Your task to perform on an android device: change text size in settings app Image 0: 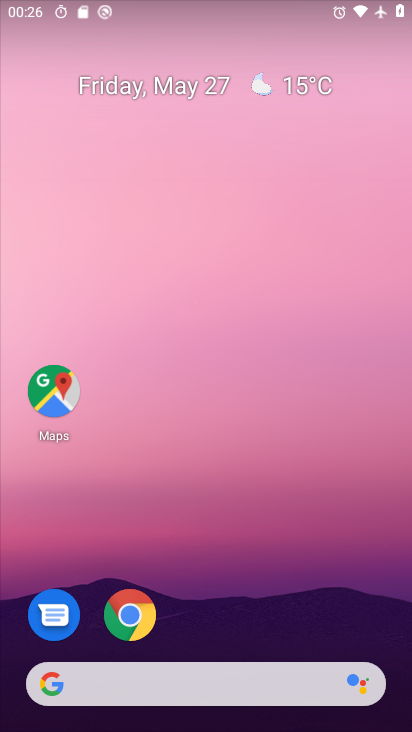
Step 0: drag from (278, 690) to (150, 24)
Your task to perform on an android device: change text size in settings app Image 1: 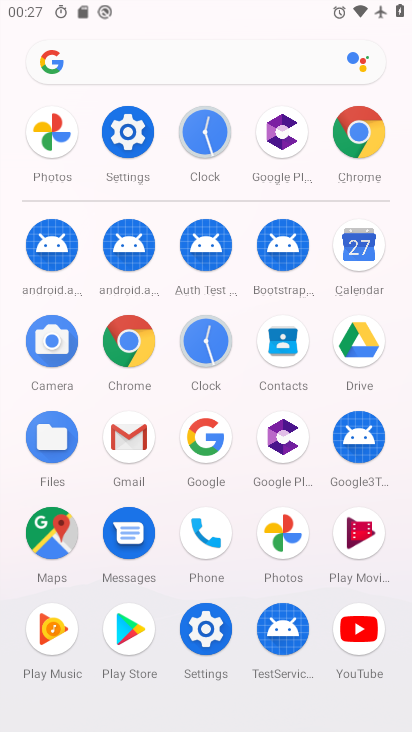
Step 1: click (128, 123)
Your task to perform on an android device: change text size in settings app Image 2: 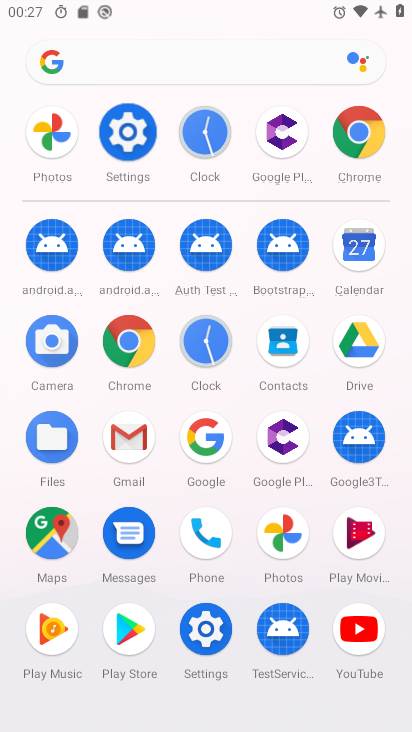
Step 2: click (131, 127)
Your task to perform on an android device: change text size in settings app Image 3: 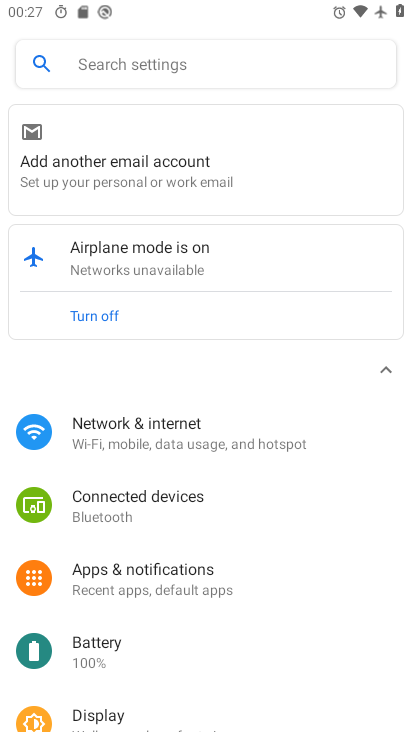
Step 3: click (132, 128)
Your task to perform on an android device: change text size in settings app Image 4: 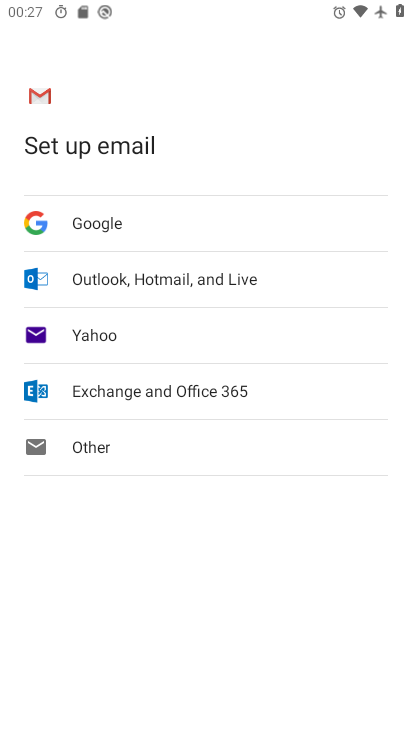
Step 4: press back button
Your task to perform on an android device: change text size in settings app Image 5: 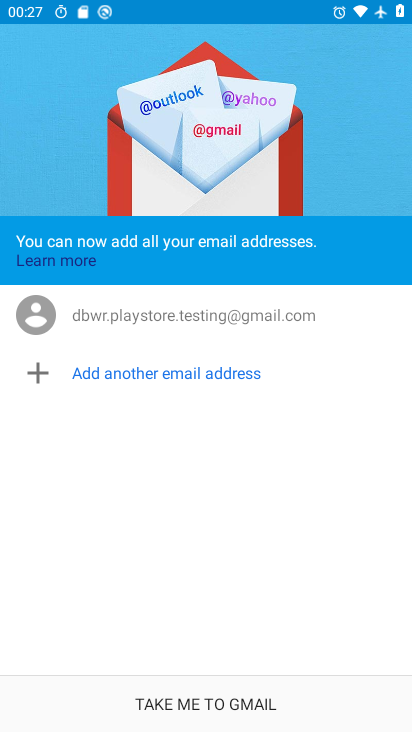
Step 5: press home button
Your task to perform on an android device: change text size in settings app Image 6: 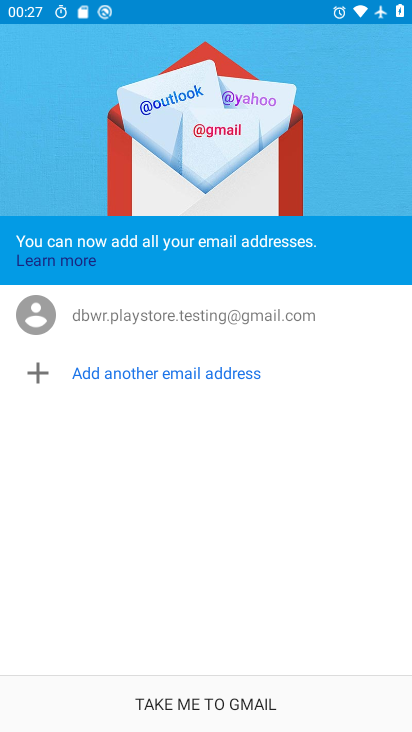
Step 6: press home button
Your task to perform on an android device: change text size in settings app Image 7: 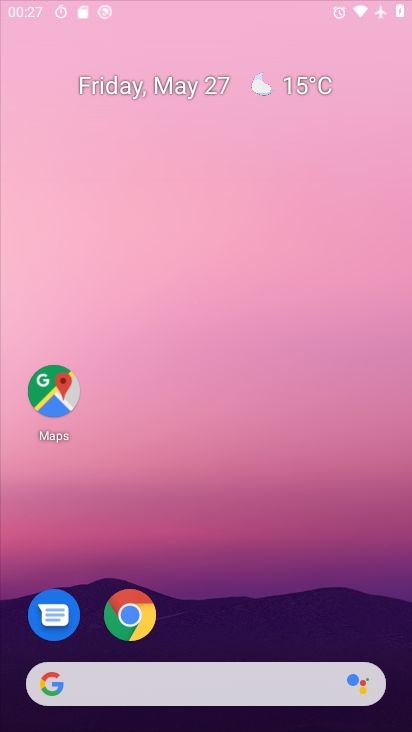
Step 7: press home button
Your task to perform on an android device: change text size in settings app Image 8: 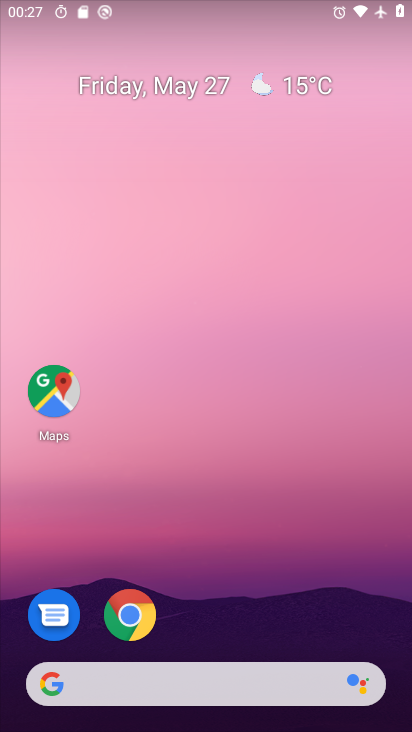
Step 8: drag from (254, 689) to (151, 129)
Your task to perform on an android device: change text size in settings app Image 9: 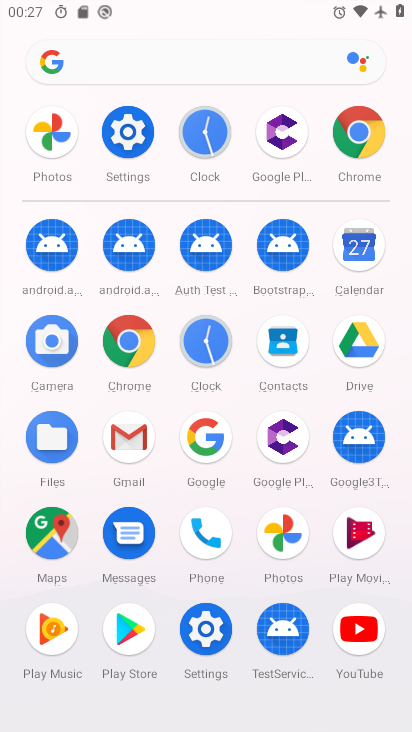
Step 9: click (196, 635)
Your task to perform on an android device: change text size in settings app Image 10: 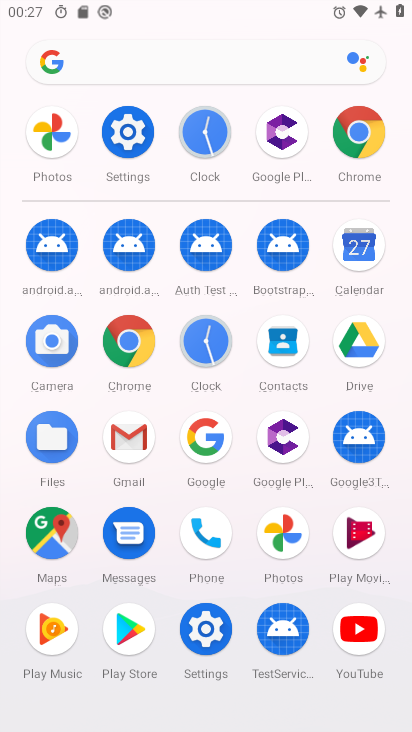
Step 10: click (199, 635)
Your task to perform on an android device: change text size in settings app Image 11: 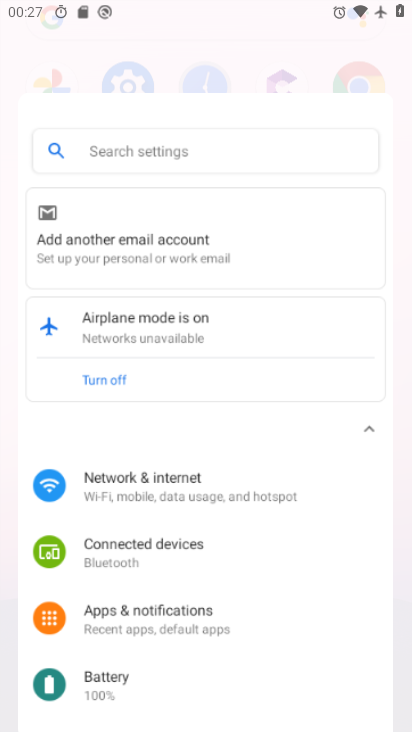
Step 11: click (205, 639)
Your task to perform on an android device: change text size in settings app Image 12: 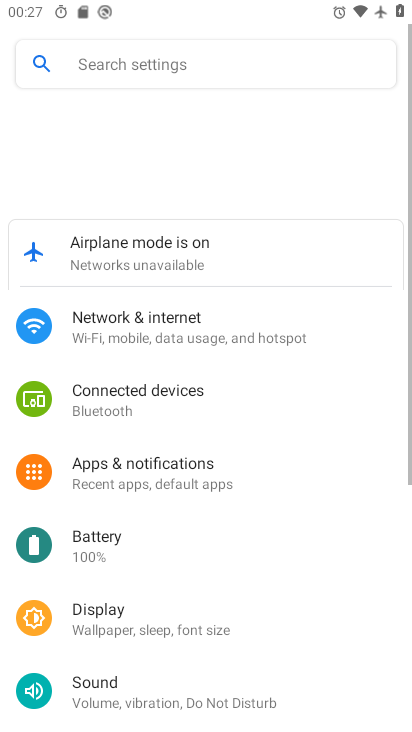
Step 12: click (205, 639)
Your task to perform on an android device: change text size in settings app Image 13: 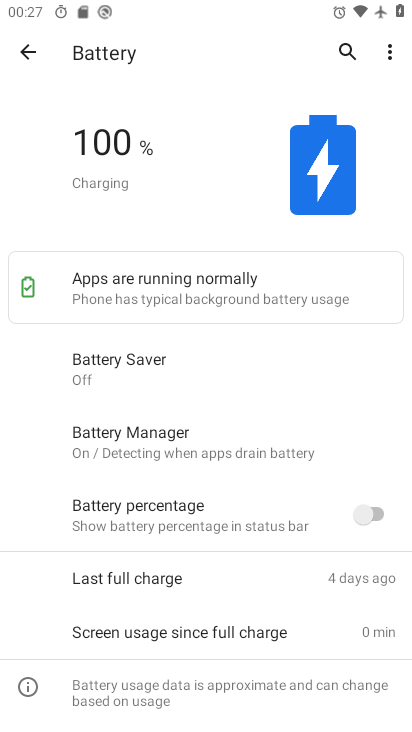
Step 13: click (205, 639)
Your task to perform on an android device: change text size in settings app Image 14: 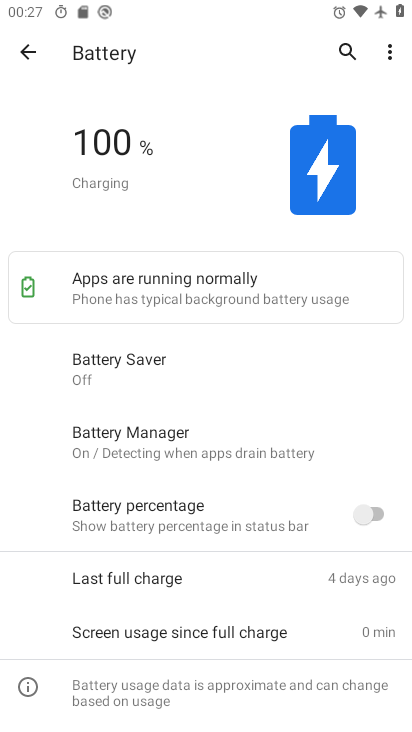
Step 14: drag from (113, 364) to (90, 265)
Your task to perform on an android device: change text size in settings app Image 15: 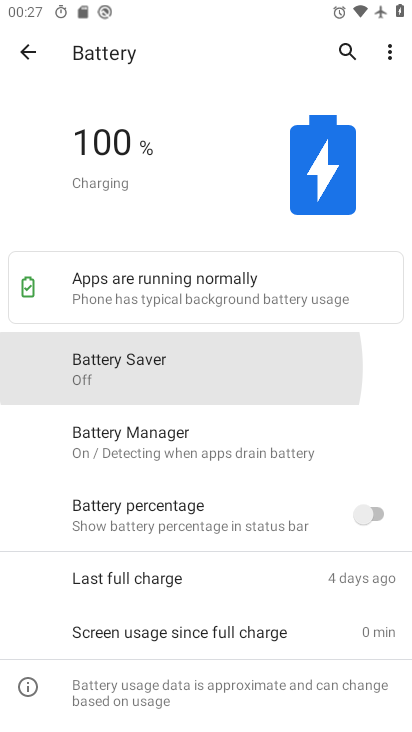
Step 15: drag from (154, 442) to (149, 226)
Your task to perform on an android device: change text size in settings app Image 16: 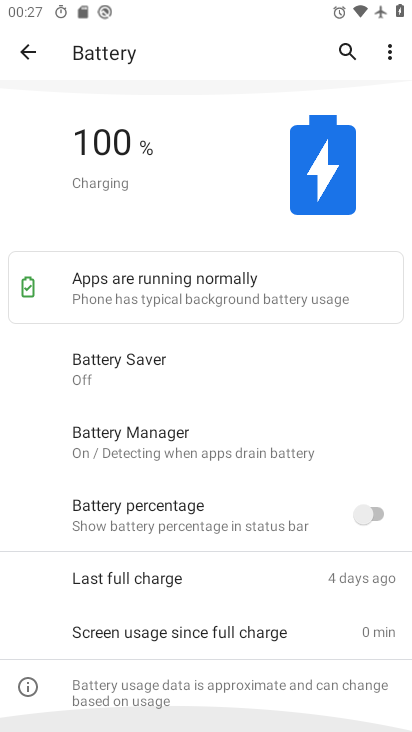
Step 16: drag from (150, 422) to (150, 171)
Your task to perform on an android device: change text size in settings app Image 17: 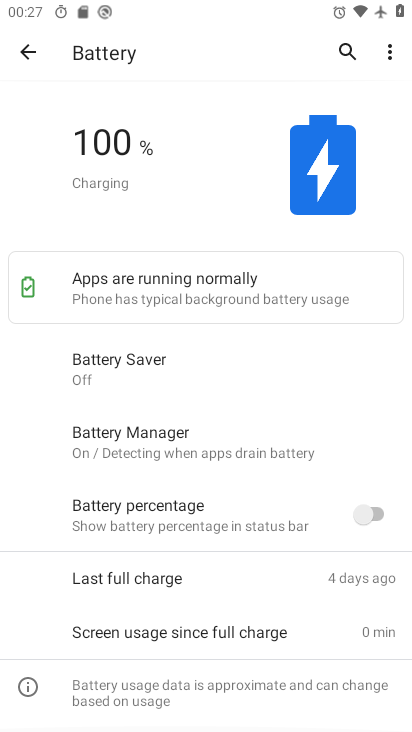
Step 17: drag from (173, 249) to (179, 174)
Your task to perform on an android device: change text size in settings app Image 18: 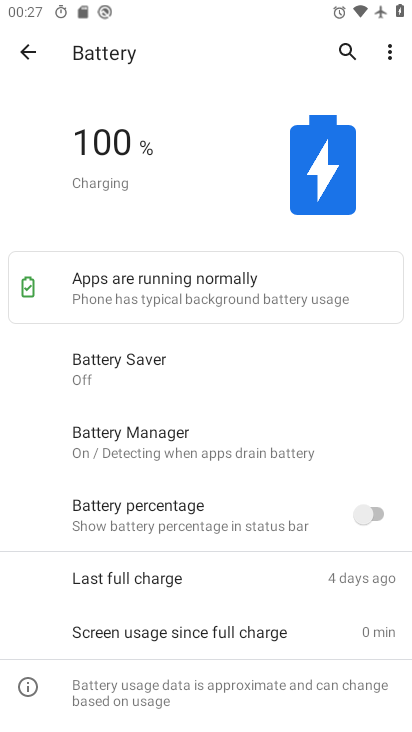
Step 18: drag from (190, 420) to (250, 63)
Your task to perform on an android device: change text size in settings app Image 19: 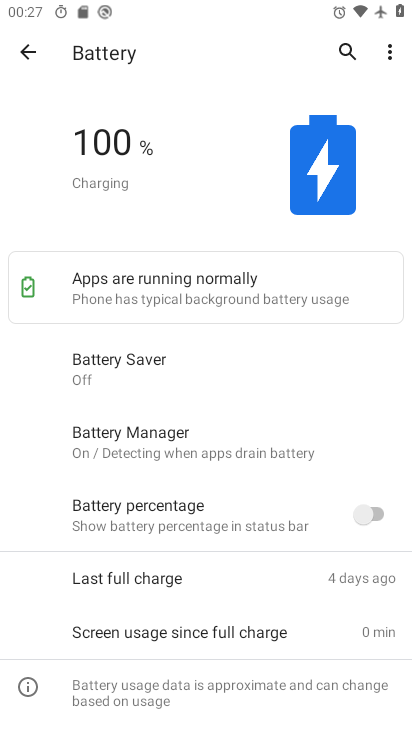
Step 19: click (219, 50)
Your task to perform on an android device: change text size in settings app Image 20: 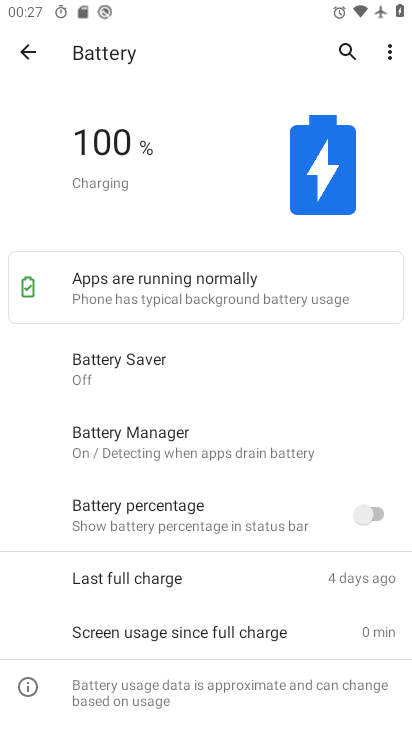
Step 20: drag from (92, 147) to (109, 206)
Your task to perform on an android device: change text size in settings app Image 21: 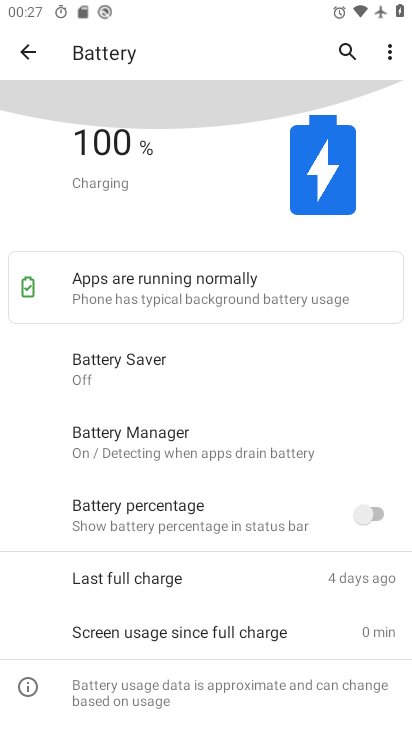
Step 21: click (137, 208)
Your task to perform on an android device: change text size in settings app Image 22: 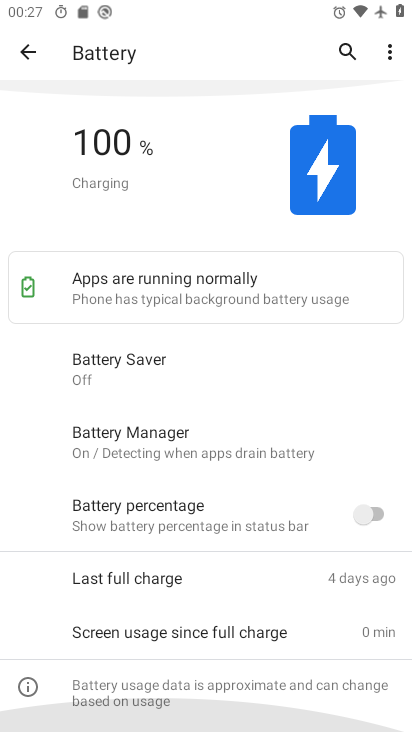
Step 22: drag from (192, 386) to (192, 223)
Your task to perform on an android device: change text size in settings app Image 23: 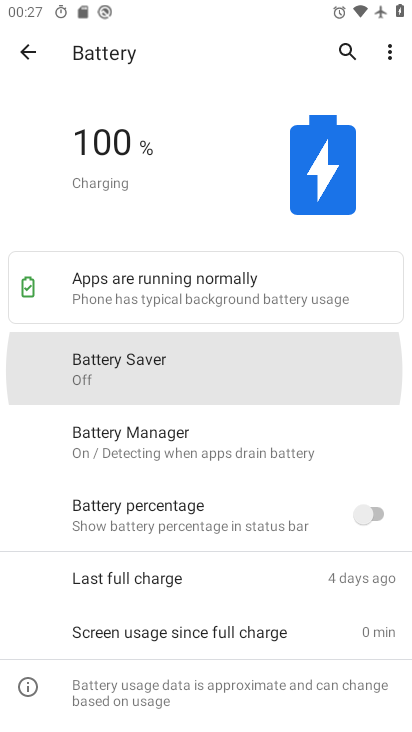
Step 23: drag from (185, 455) to (185, 225)
Your task to perform on an android device: change text size in settings app Image 24: 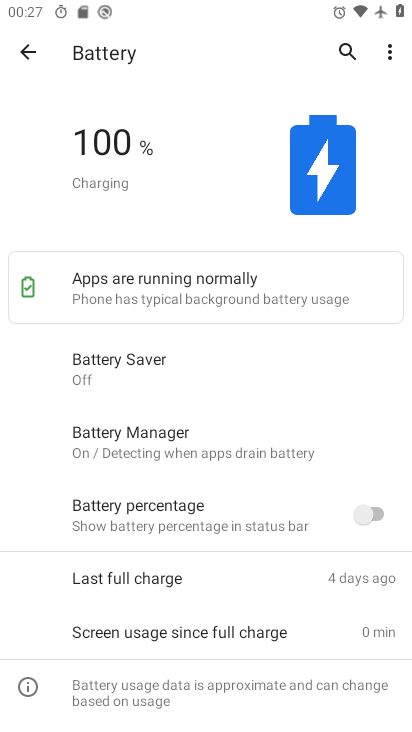
Step 24: click (189, 222)
Your task to perform on an android device: change text size in settings app Image 25: 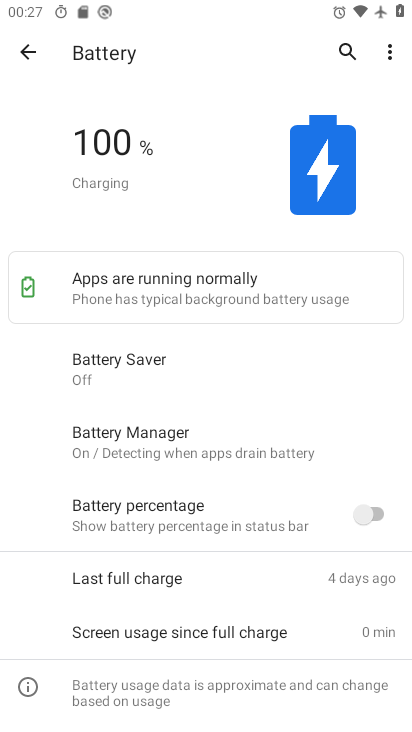
Step 25: drag from (181, 428) to (148, 202)
Your task to perform on an android device: change text size in settings app Image 26: 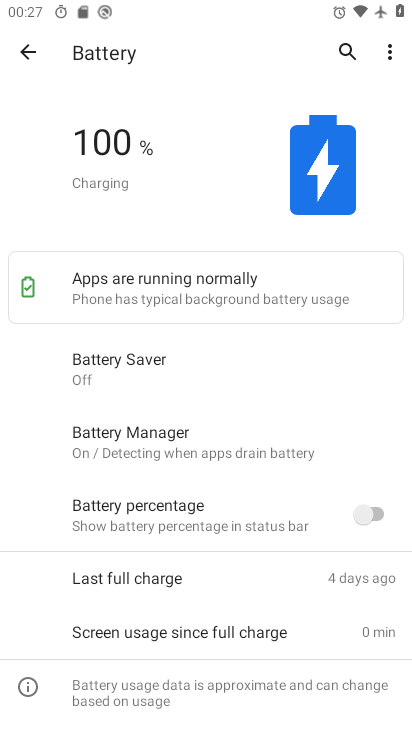
Step 26: drag from (193, 550) to (187, 178)
Your task to perform on an android device: change text size in settings app Image 27: 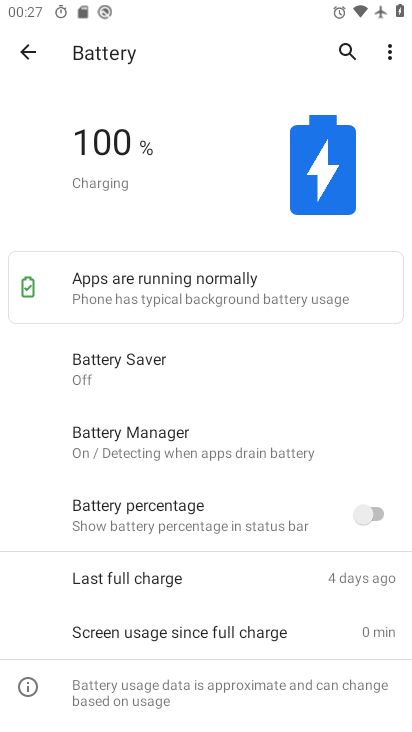
Step 27: drag from (186, 502) to (136, 232)
Your task to perform on an android device: change text size in settings app Image 28: 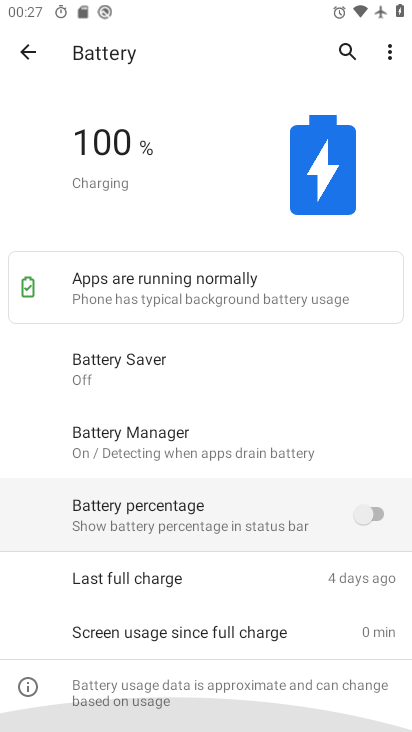
Step 28: drag from (181, 572) to (123, 159)
Your task to perform on an android device: change text size in settings app Image 29: 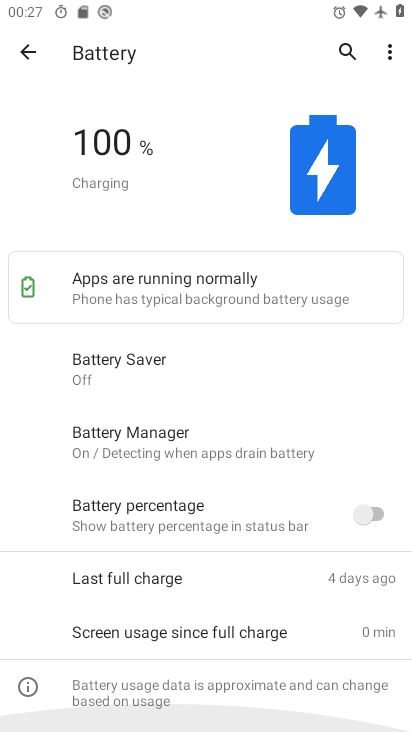
Step 29: drag from (118, 463) to (91, 168)
Your task to perform on an android device: change text size in settings app Image 30: 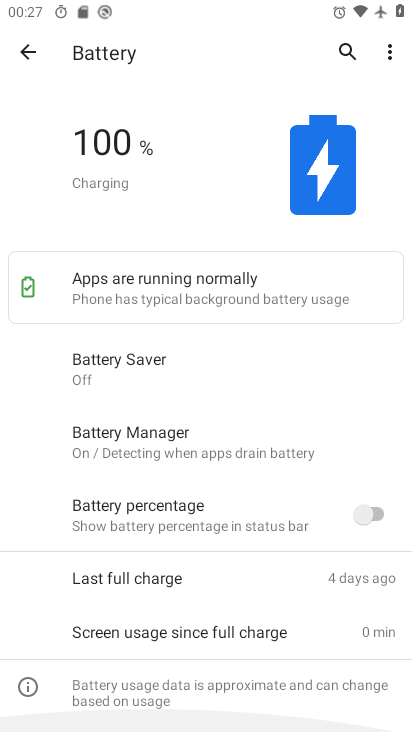
Step 30: click (23, 45)
Your task to perform on an android device: change text size in settings app Image 31: 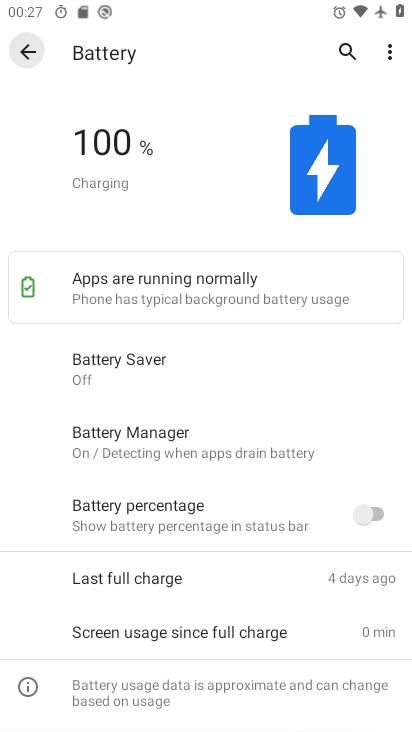
Step 31: click (23, 45)
Your task to perform on an android device: change text size in settings app Image 32: 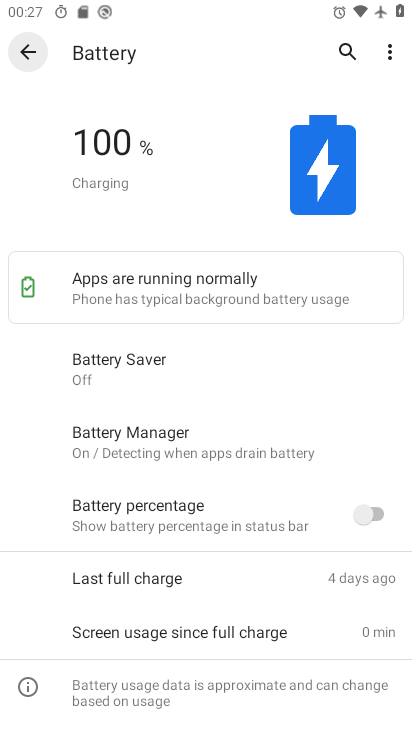
Step 32: click (24, 46)
Your task to perform on an android device: change text size in settings app Image 33: 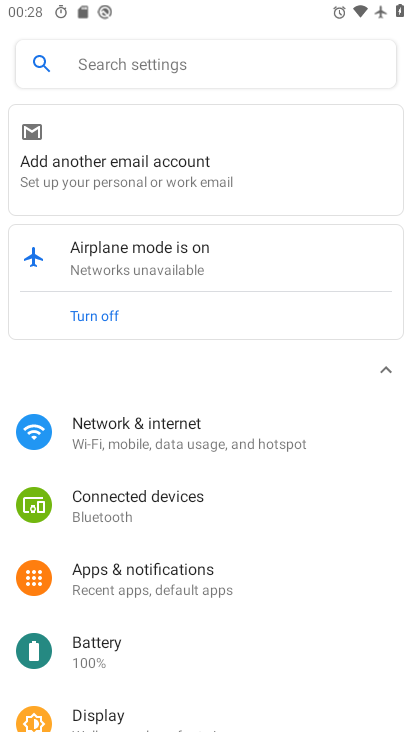
Step 33: drag from (179, 640) to (145, 371)
Your task to perform on an android device: change text size in settings app Image 34: 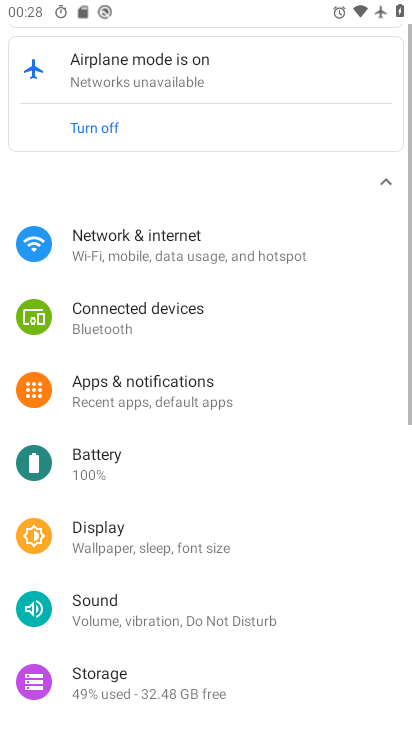
Step 34: drag from (165, 611) to (125, 338)
Your task to perform on an android device: change text size in settings app Image 35: 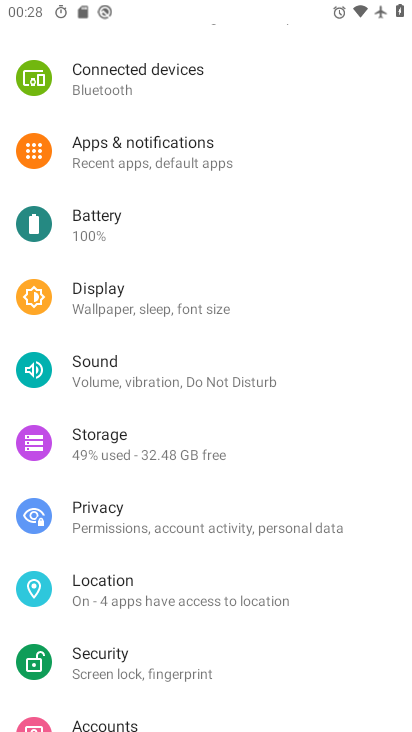
Step 35: click (97, 296)
Your task to perform on an android device: change text size in settings app Image 36: 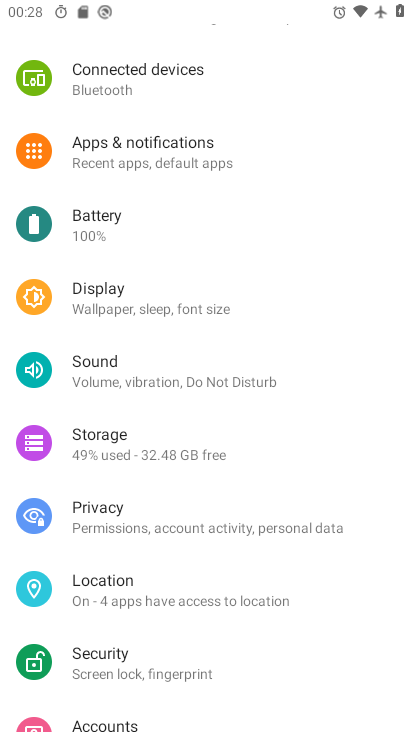
Step 36: click (96, 295)
Your task to perform on an android device: change text size in settings app Image 37: 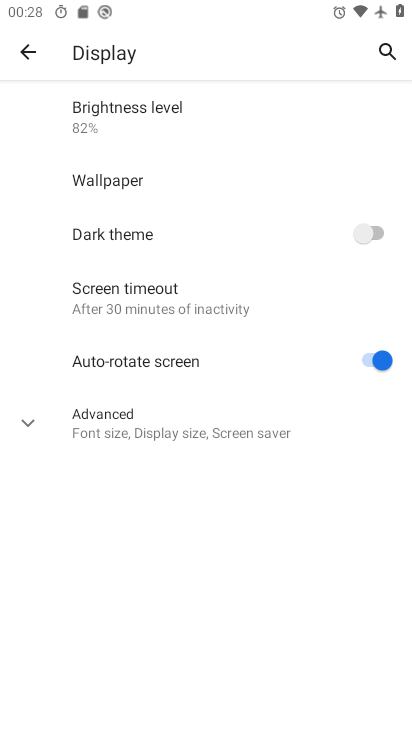
Step 37: click (125, 427)
Your task to perform on an android device: change text size in settings app Image 38: 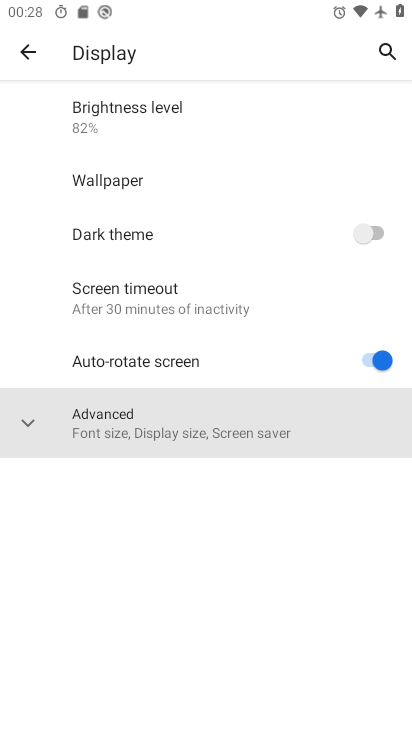
Step 38: click (125, 428)
Your task to perform on an android device: change text size in settings app Image 39: 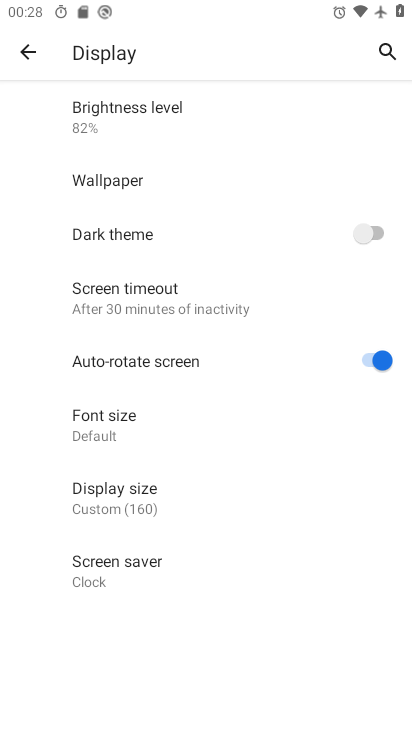
Step 39: click (125, 428)
Your task to perform on an android device: change text size in settings app Image 40: 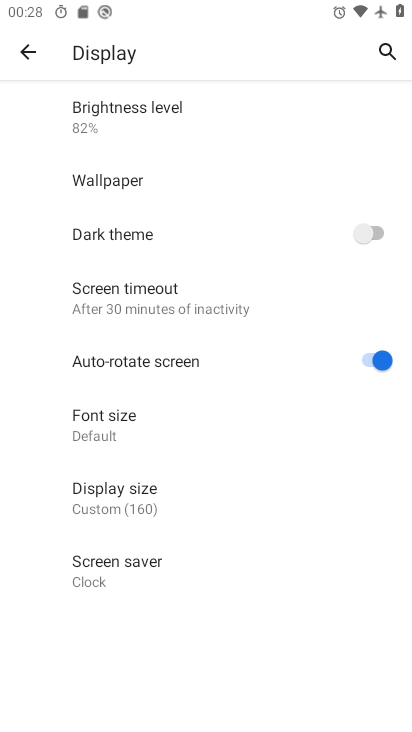
Step 40: click (82, 422)
Your task to perform on an android device: change text size in settings app Image 41: 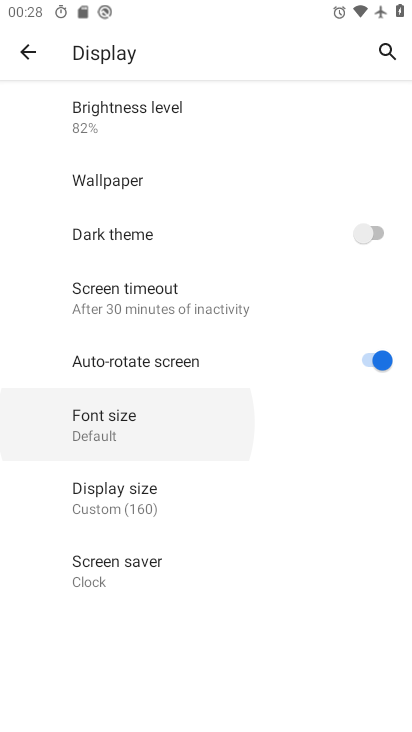
Step 41: click (83, 421)
Your task to perform on an android device: change text size in settings app Image 42: 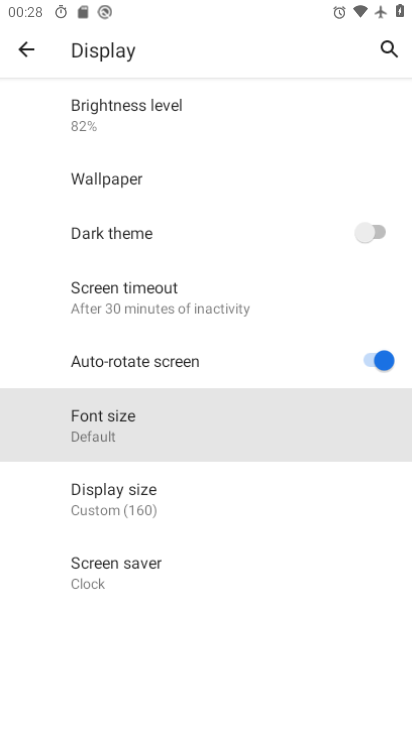
Step 42: click (83, 421)
Your task to perform on an android device: change text size in settings app Image 43: 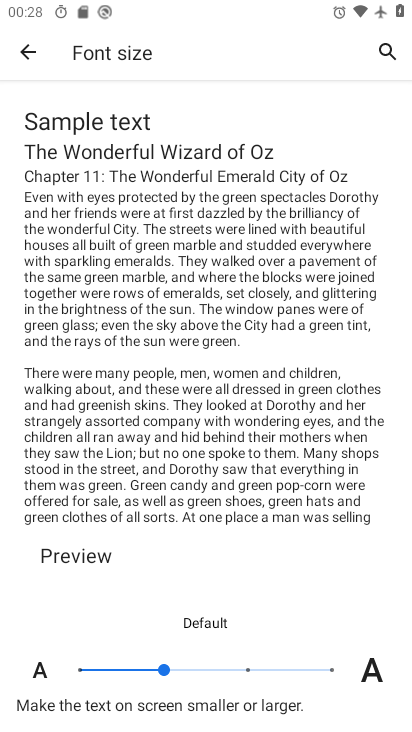
Step 43: click (249, 672)
Your task to perform on an android device: change text size in settings app Image 44: 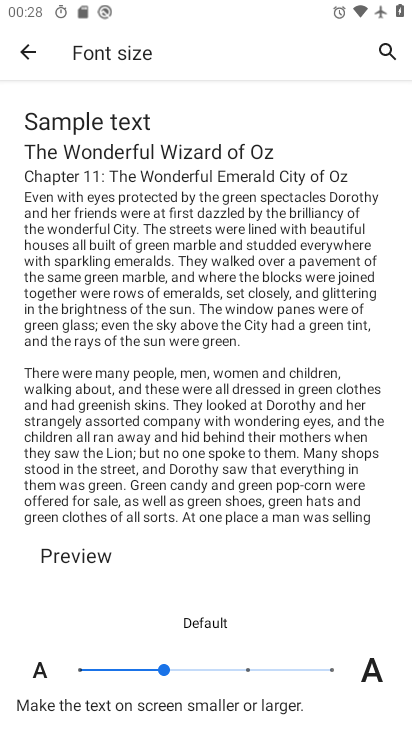
Step 44: click (249, 672)
Your task to perform on an android device: change text size in settings app Image 45: 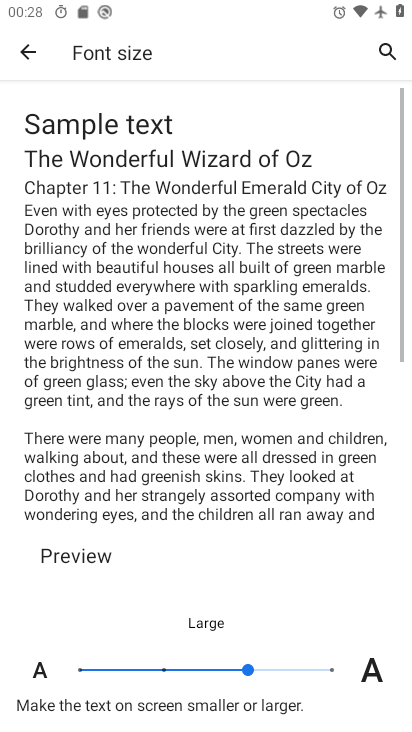
Step 45: click (249, 672)
Your task to perform on an android device: change text size in settings app Image 46: 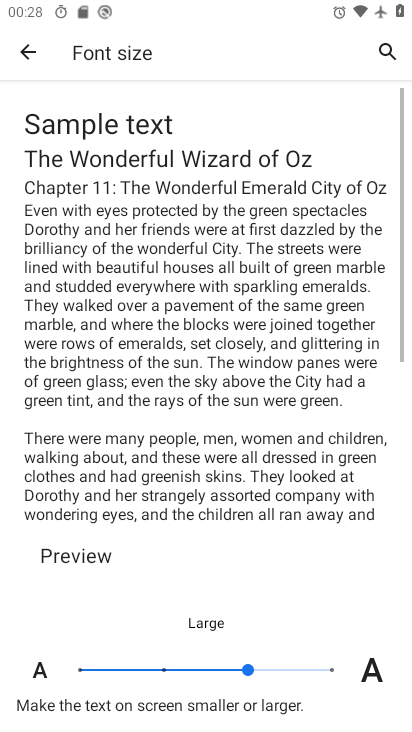
Step 46: click (239, 666)
Your task to perform on an android device: change text size in settings app Image 47: 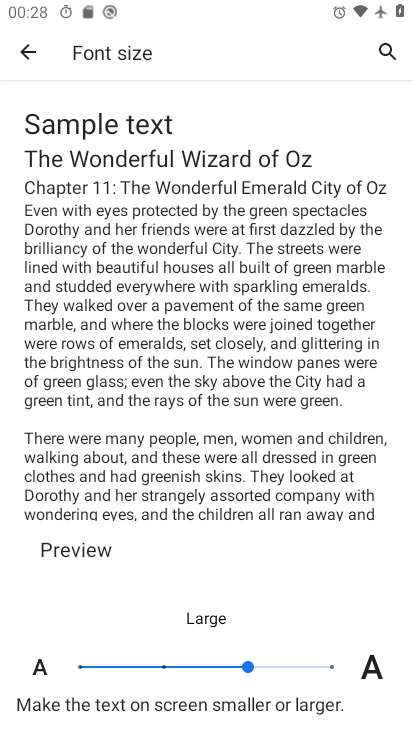
Step 47: task complete